Your task to perform on an android device: see tabs open on other devices in the chrome app Image 0: 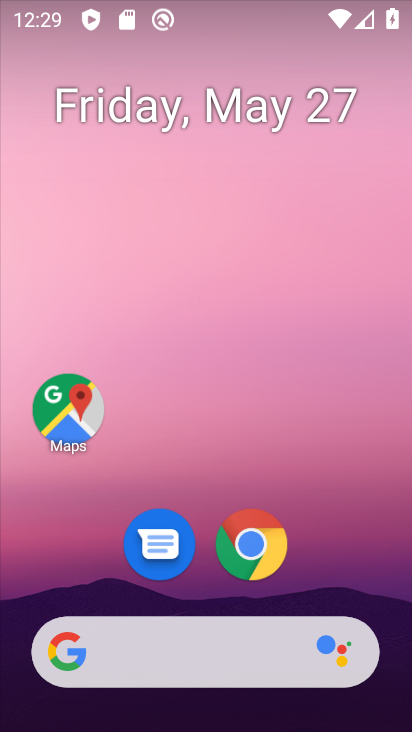
Step 0: click (237, 89)
Your task to perform on an android device: see tabs open on other devices in the chrome app Image 1: 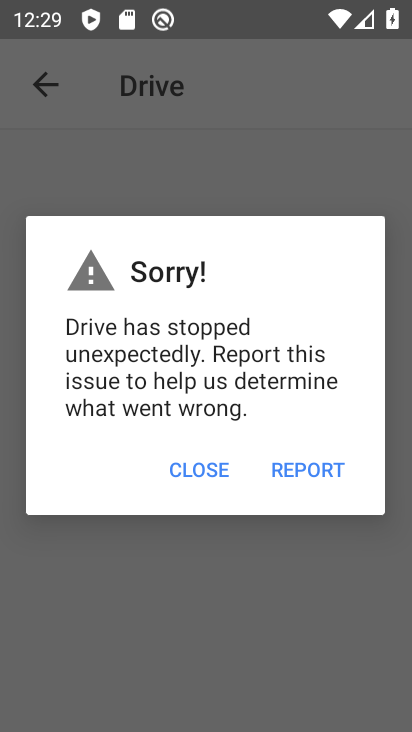
Step 1: press home button
Your task to perform on an android device: see tabs open on other devices in the chrome app Image 2: 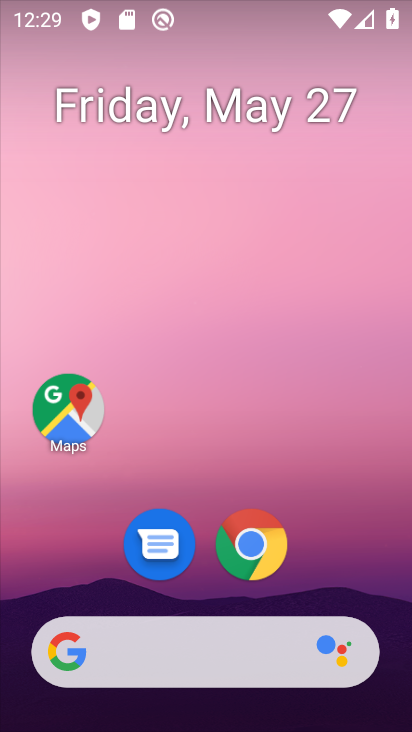
Step 2: click (252, 539)
Your task to perform on an android device: see tabs open on other devices in the chrome app Image 3: 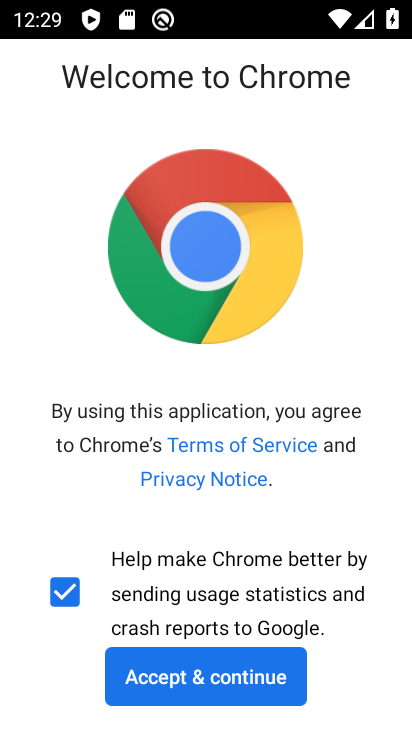
Step 3: click (230, 665)
Your task to perform on an android device: see tabs open on other devices in the chrome app Image 4: 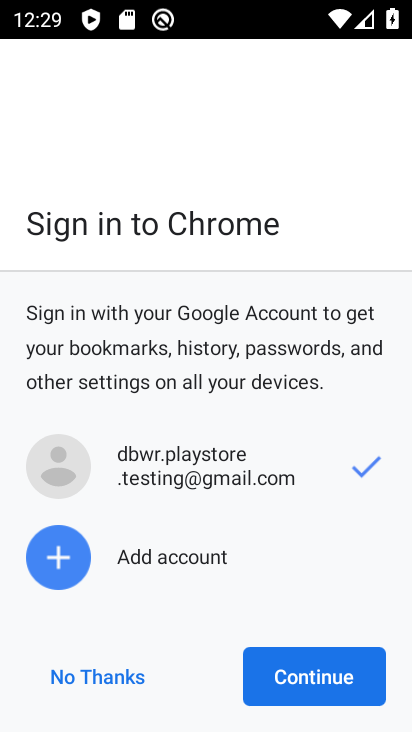
Step 4: click (274, 686)
Your task to perform on an android device: see tabs open on other devices in the chrome app Image 5: 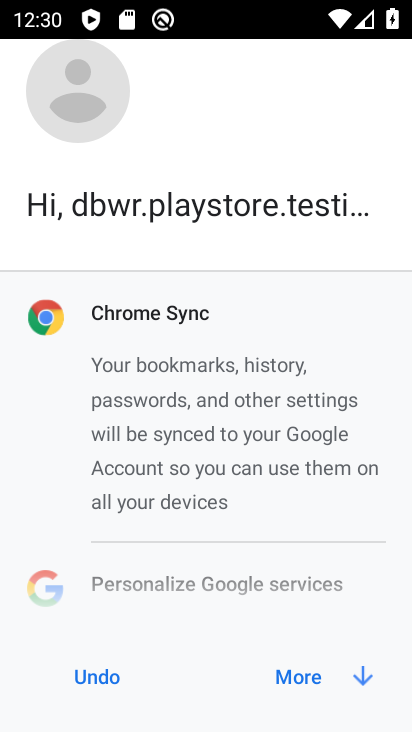
Step 5: click (364, 681)
Your task to perform on an android device: see tabs open on other devices in the chrome app Image 6: 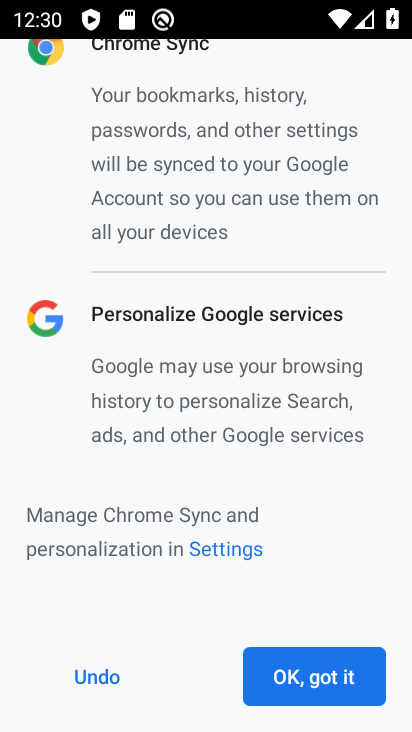
Step 6: click (310, 679)
Your task to perform on an android device: see tabs open on other devices in the chrome app Image 7: 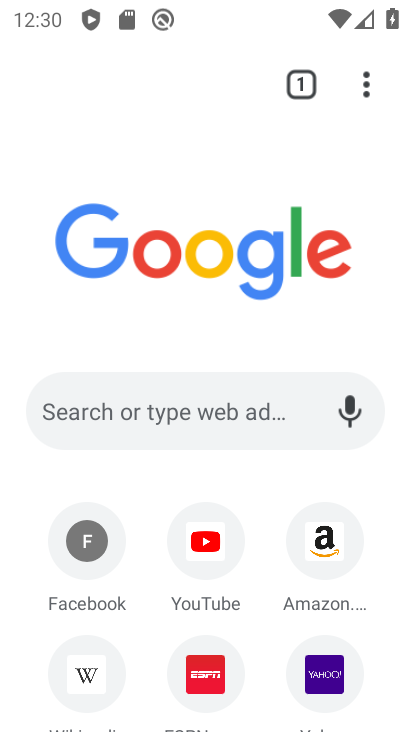
Step 7: click (365, 76)
Your task to perform on an android device: see tabs open on other devices in the chrome app Image 8: 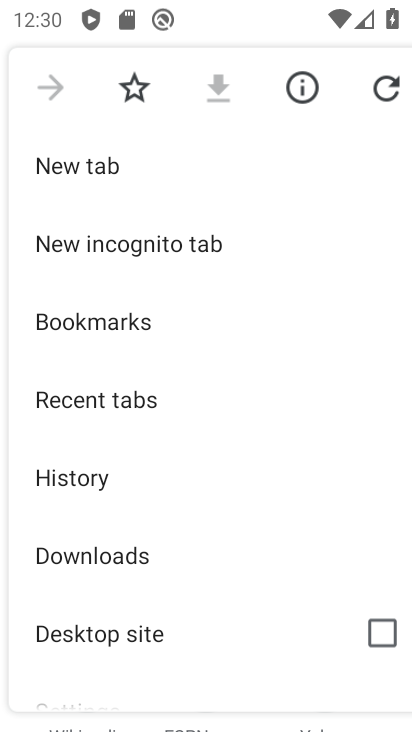
Step 8: click (100, 391)
Your task to perform on an android device: see tabs open on other devices in the chrome app Image 9: 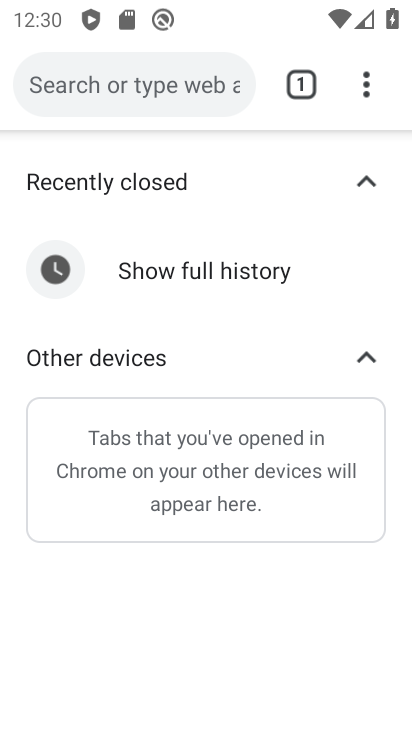
Step 9: task complete